Your task to perform on an android device: Open the map Image 0: 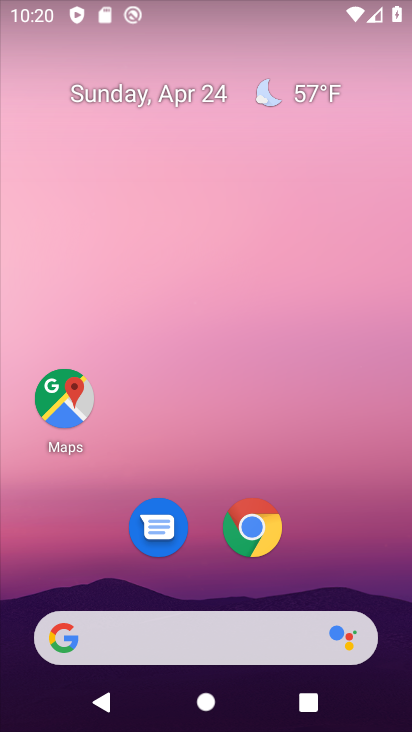
Step 0: drag from (244, 706) to (189, 153)
Your task to perform on an android device: Open the map Image 1: 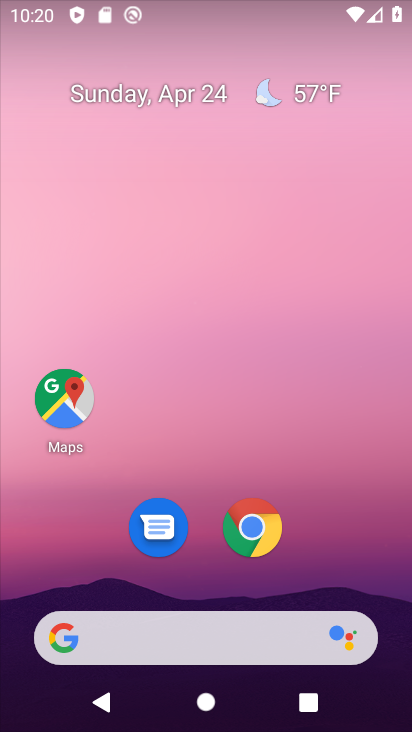
Step 1: drag from (260, 668) to (200, 93)
Your task to perform on an android device: Open the map Image 2: 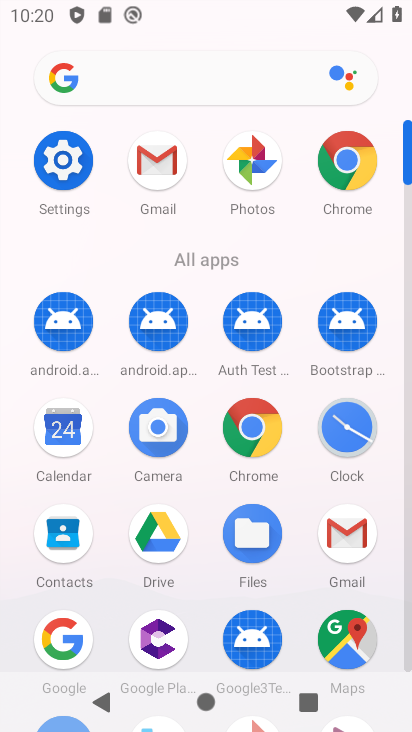
Step 2: drag from (340, 660) to (352, 707)
Your task to perform on an android device: Open the map Image 3: 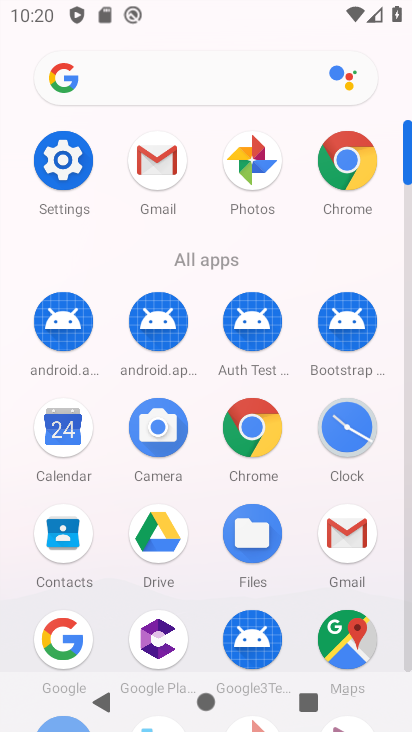
Step 3: click (350, 637)
Your task to perform on an android device: Open the map Image 4: 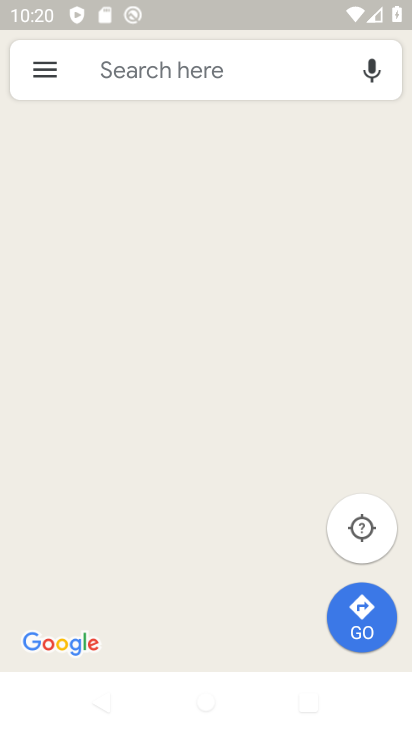
Step 4: press home button
Your task to perform on an android device: Open the map Image 5: 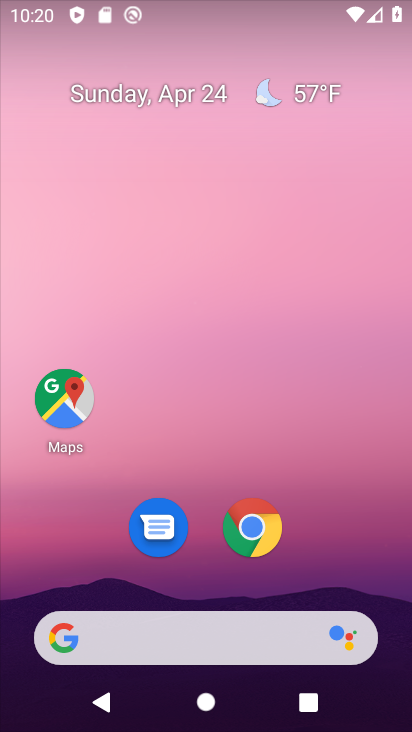
Step 5: drag from (261, 670) to (206, 19)
Your task to perform on an android device: Open the map Image 6: 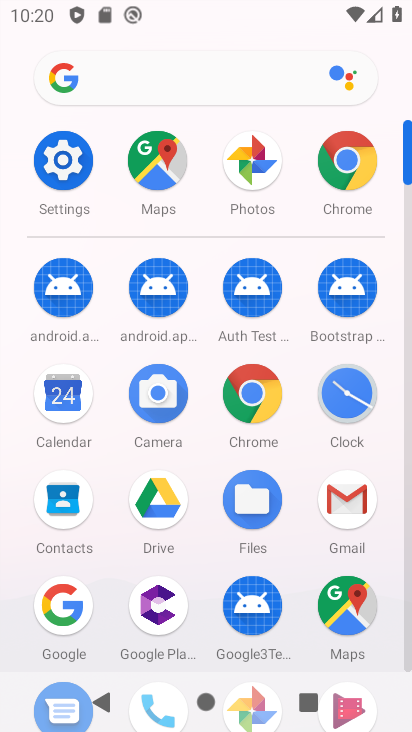
Step 6: click (340, 613)
Your task to perform on an android device: Open the map Image 7: 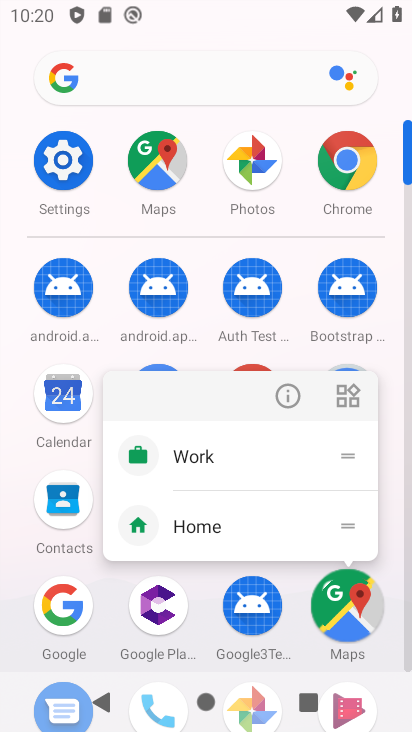
Step 7: click (341, 612)
Your task to perform on an android device: Open the map Image 8: 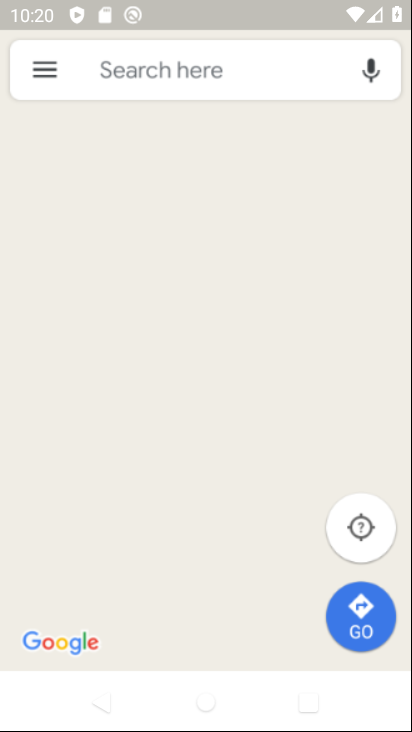
Step 8: click (345, 612)
Your task to perform on an android device: Open the map Image 9: 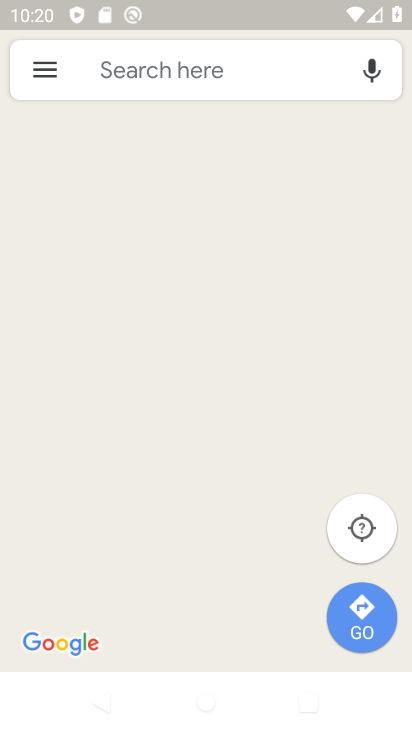
Step 9: click (119, 82)
Your task to perform on an android device: Open the map Image 10: 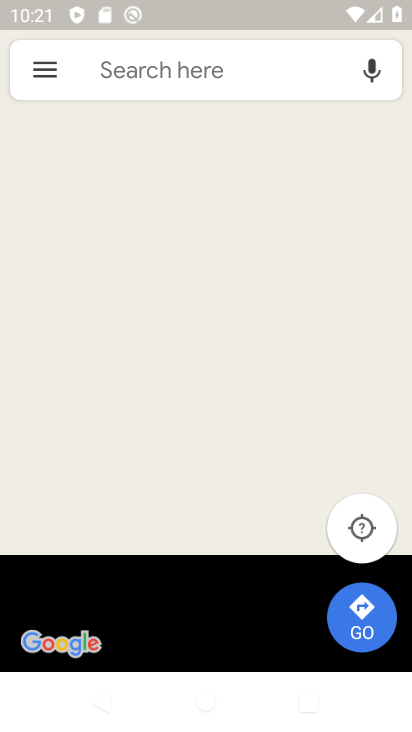
Step 10: click (129, 69)
Your task to perform on an android device: Open the map Image 11: 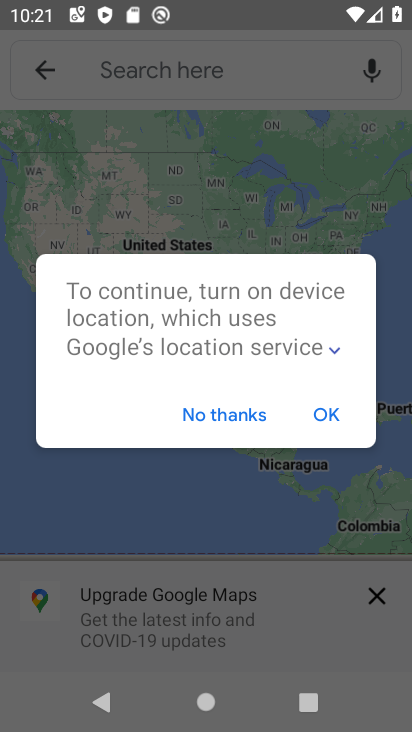
Step 11: click (117, 70)
Your task to perform on an android device: Open the map Image 12: 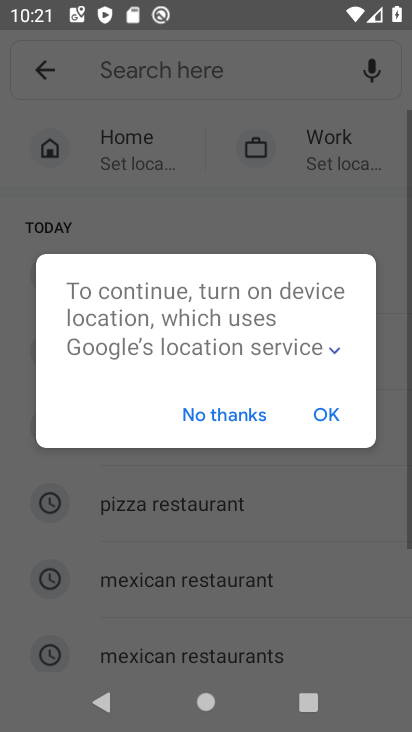
Step 12: click (321, 416)
Your task to perform on an android device: Open the map Image 13: 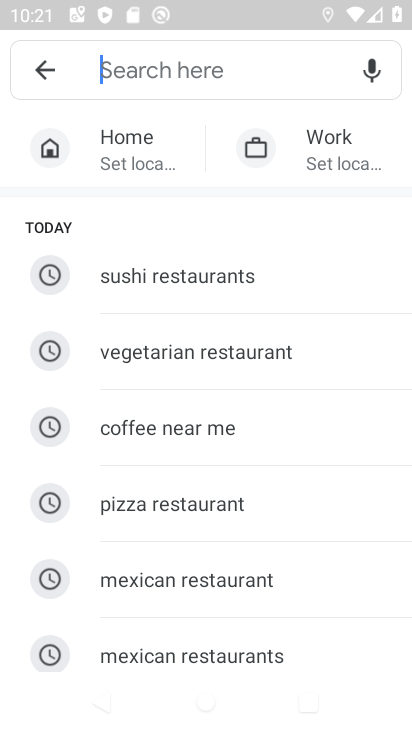
Step 13: task complete